Your task to perform on an android device: Toggle the flashlight Image 0: 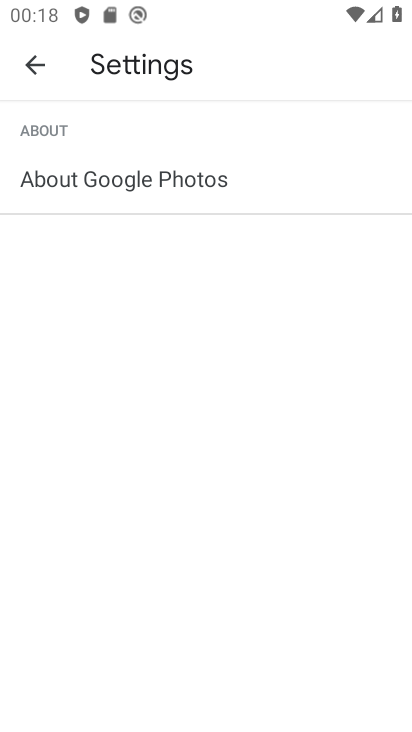
Step 0: press home button
Your task to perform on an android device: Toggle the flashlight Image 1: 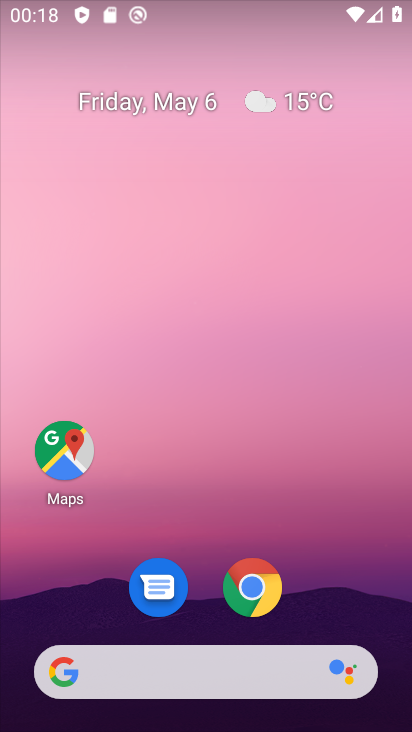
Step 1: drag from (345, 526) to (317, 233)
Your task to perform on an android device: Toggle the flashlight Image 2: 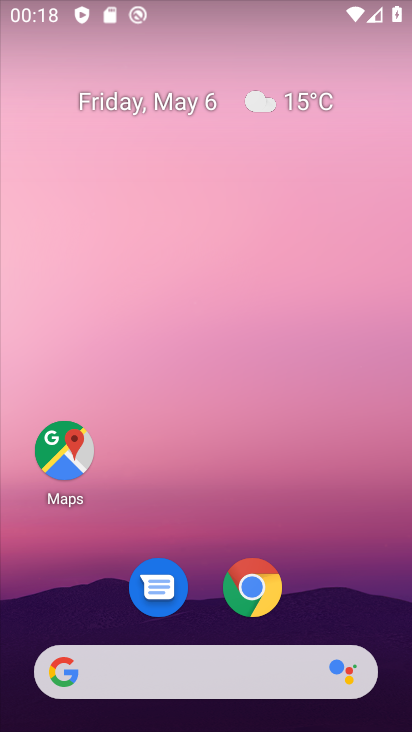
Step 2: drag from (390, 656) to (310, 292)
Your task to perform on an android device: Toggle the flashlight Image 3: 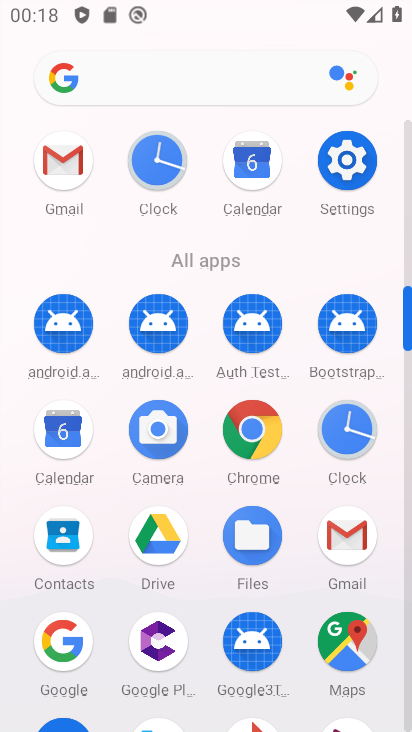
Step 3: click (342, 160)
Your task to perform on an android device: Toggle the flashlight Image 4: 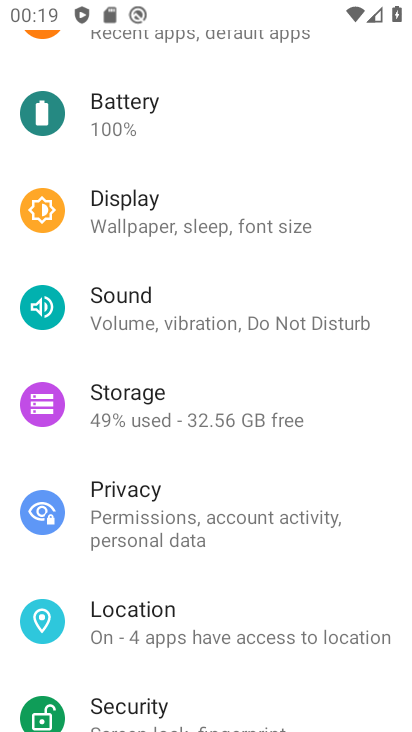
Step 4: click (174, 237)
Your task to perform on an android device: Toggle the flashlight Image 5: 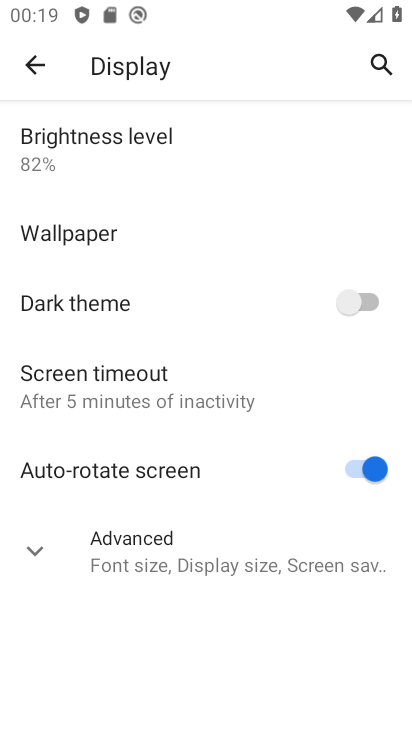
Step 5: task complete